Your task to perform on an android device: open app "Microsoft Excel" Image 0: 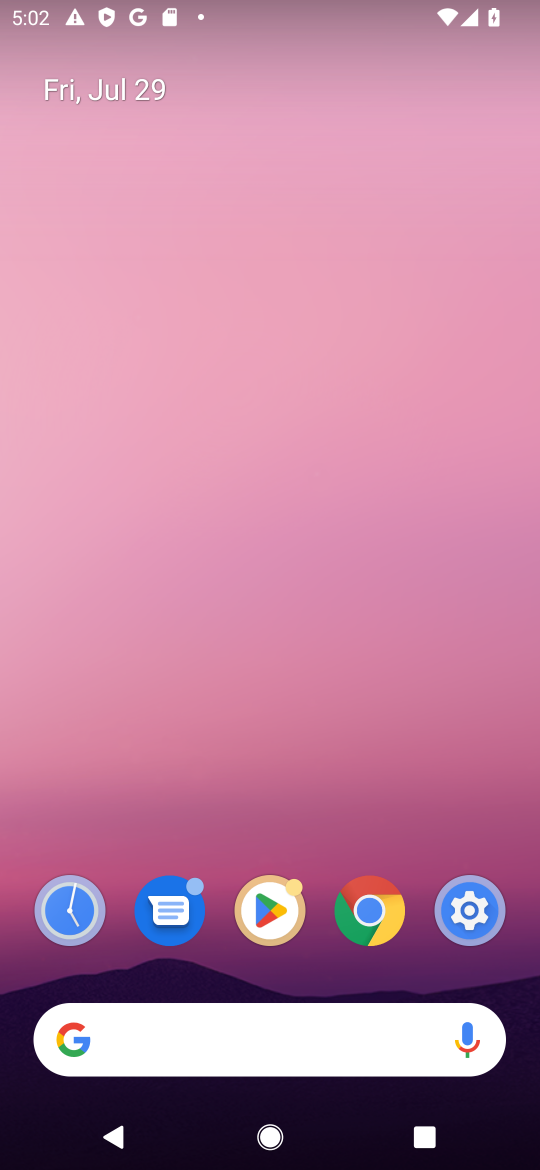
Step 0: drag from (276, 988) to (271, 181)
Your task to perform on an android device: open app "Microsoft Excel" Image 1: 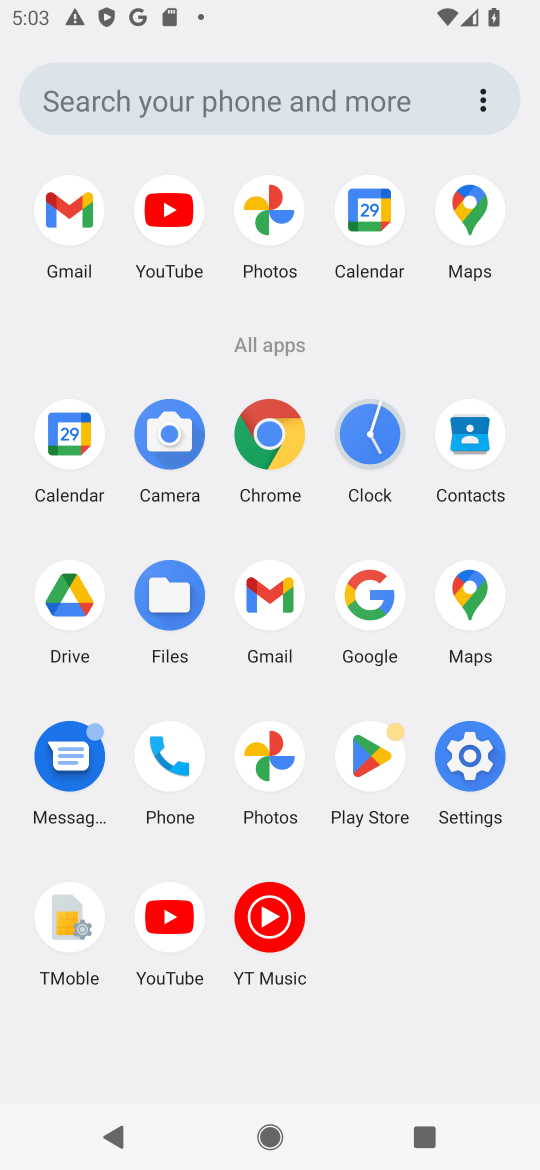
Step 1: click (359, 767)
Your task to perform on an android device: open app "Microsoft Excel" Image 2: 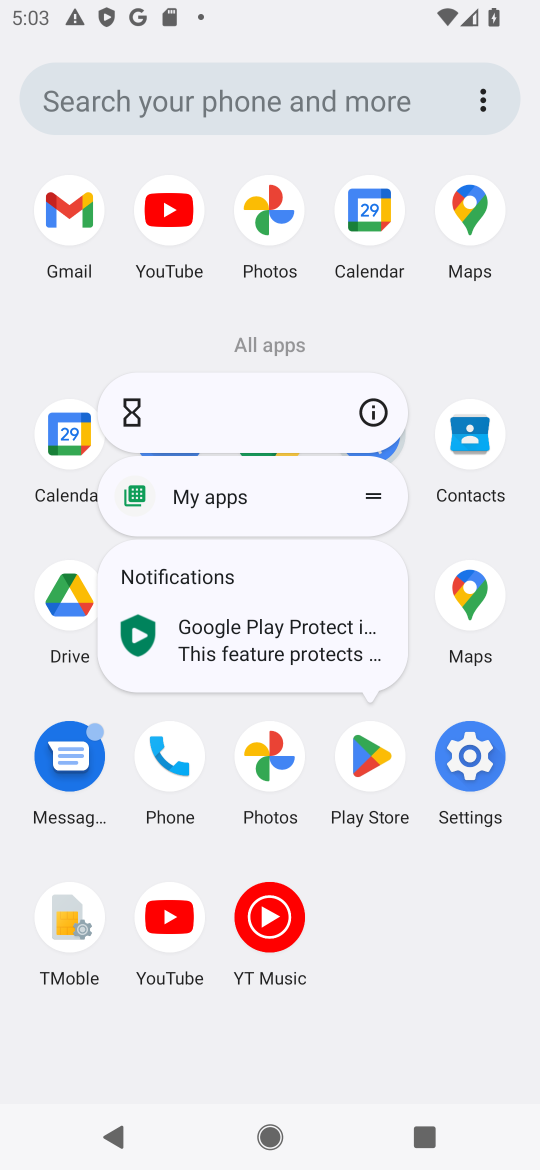
Step 2: click (180, 88)
Your task to perform on an android device: open app "Microsoft Excel" Image 3: 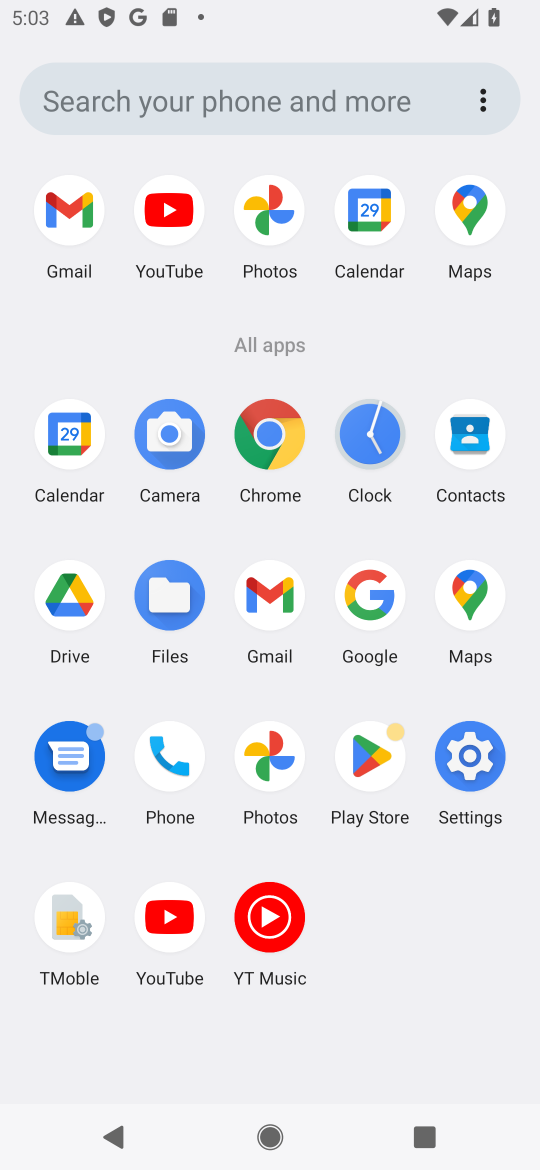
Step 3: click (125, 101)
Your task to perform on an android device: open app "Microsoft Excel" Image 4: 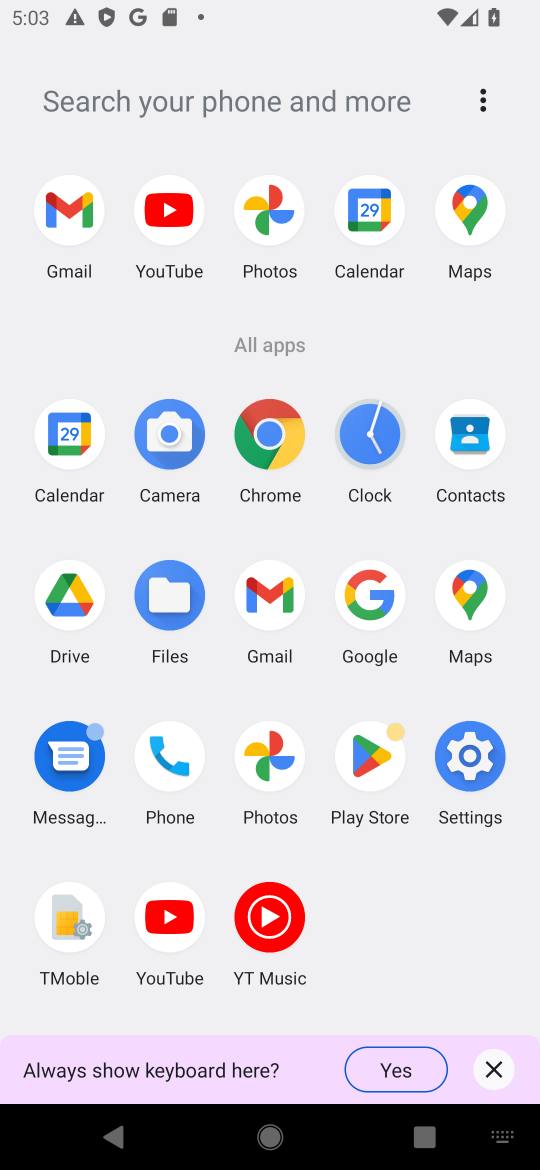
Step 4: click (375, 765)
Your task to perform on an android device: open app "Microsoft Excel" Image 5: 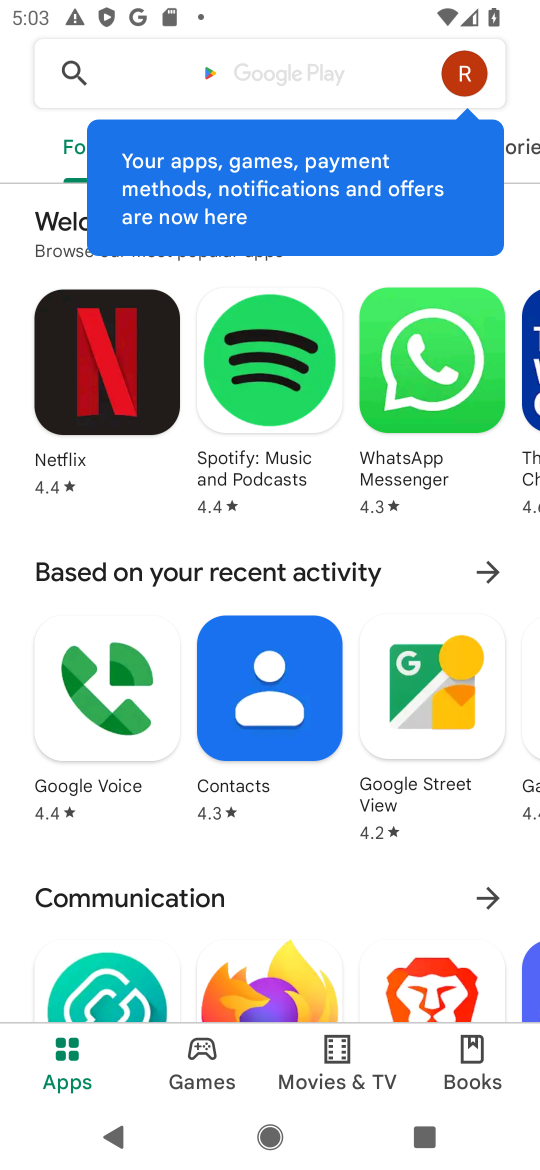
Step 5: click (314, 80)
Your task to perform on an android device: open app "Microsoft Excel" Image 6: 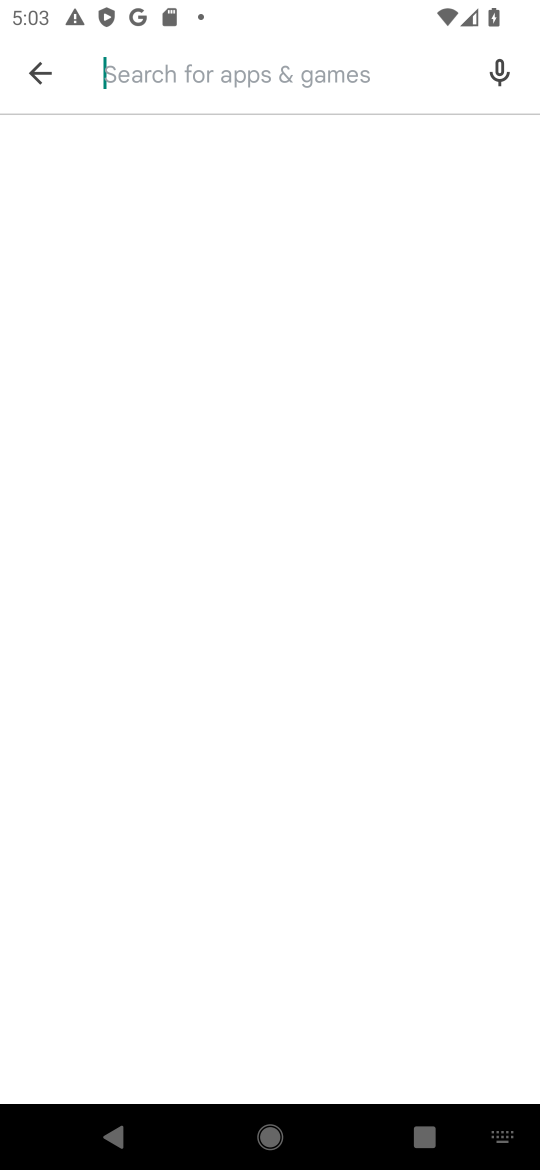
Step 6: type "Microsoft Exce"
Your task to perform on an android device: open app "Microsoft Excel" Image 7: 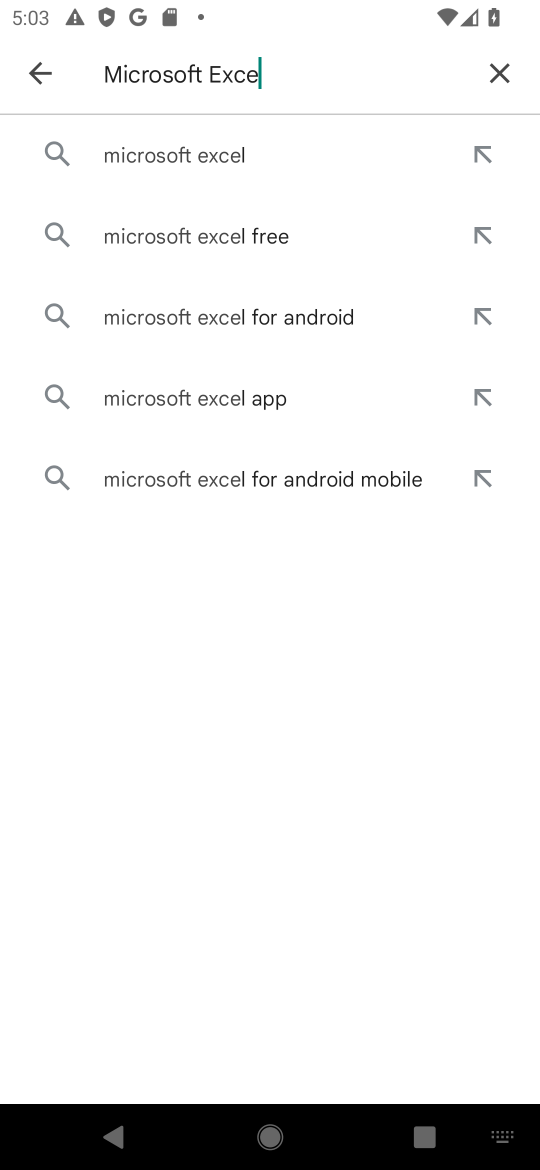
Step 7: click (186, 173)
Your task to perform on an android device: open app "Microsoft Excel" Image 8: 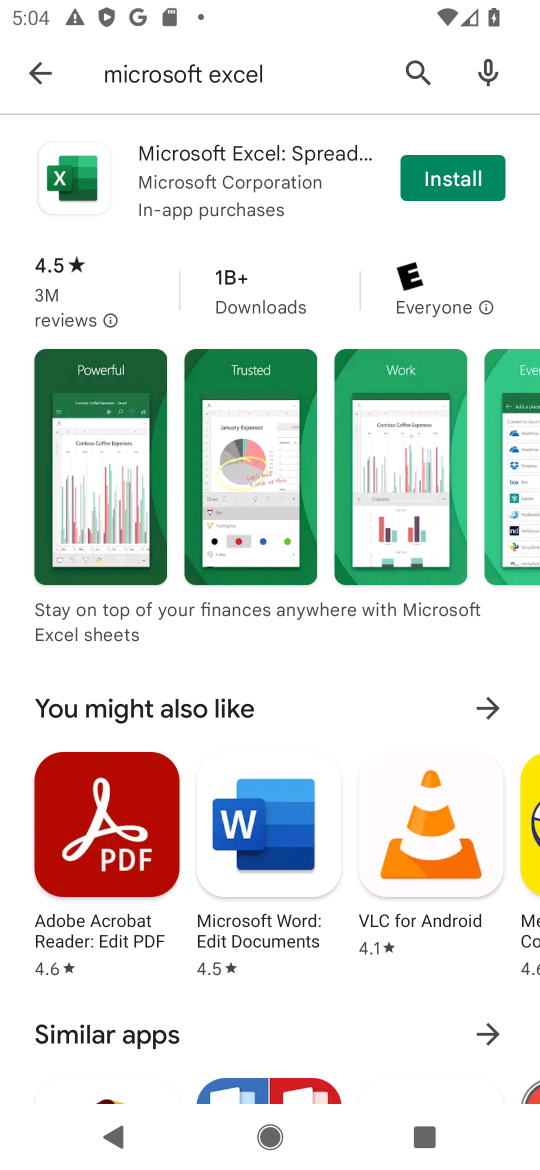
Step 8: click (428, 180)
Your task to perform on an android device: open app "Microsoft Excel" Image 9: 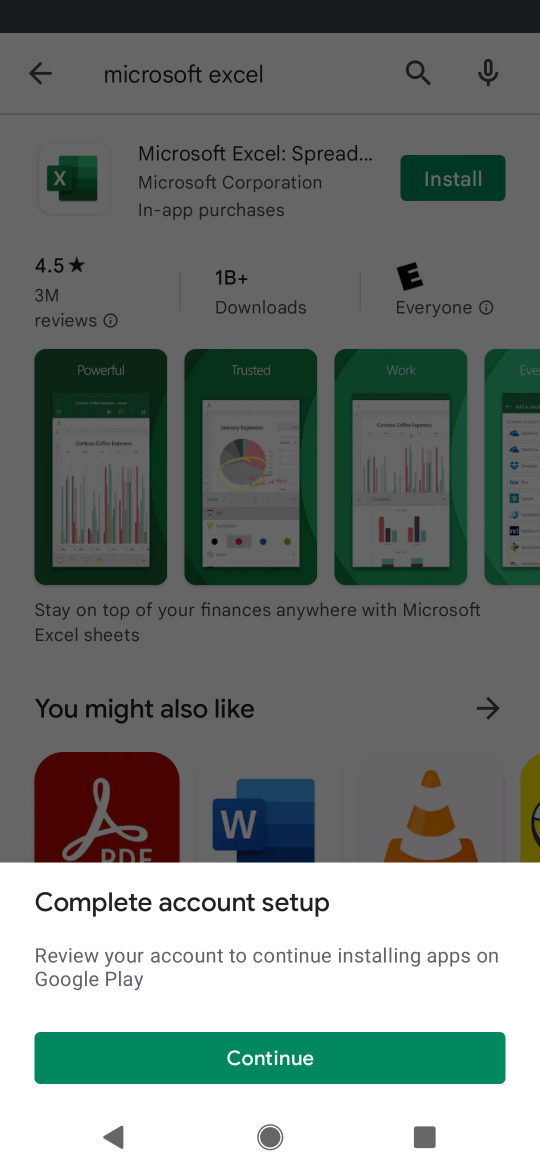
Step 9: click (279, 1068)
Your task to perform on an android device: open app "Microsoft Excel" Image 10: 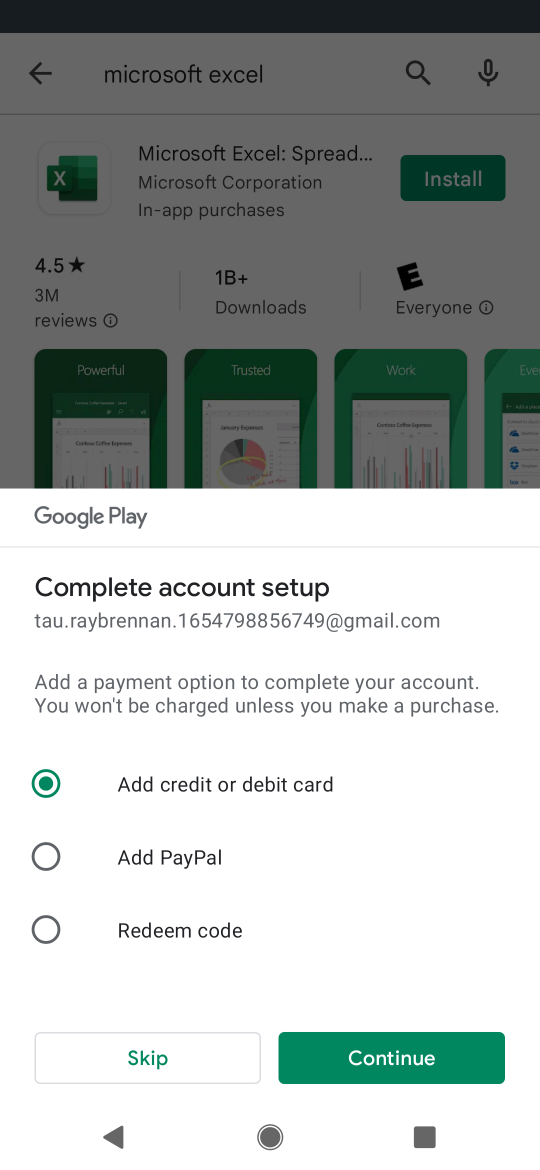
Step 10: click (138, 1068)
Your task to perform on an android device: open app "Microsoft Excel" Image 11: 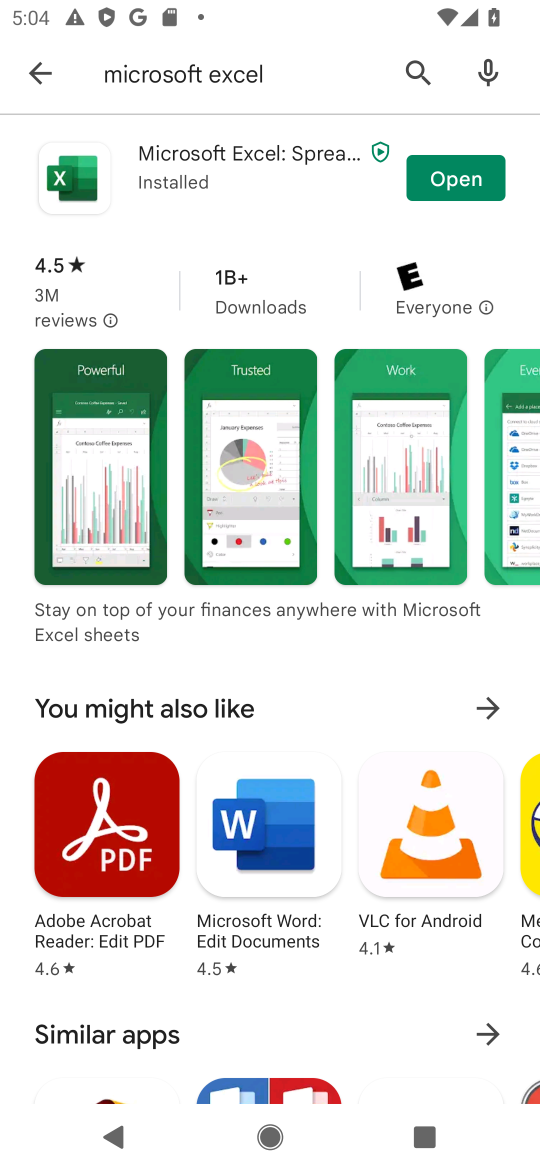
Step 11: click (445, 172)
Your task to perform on an android device: open app "Microsoft Excel" Image 12: 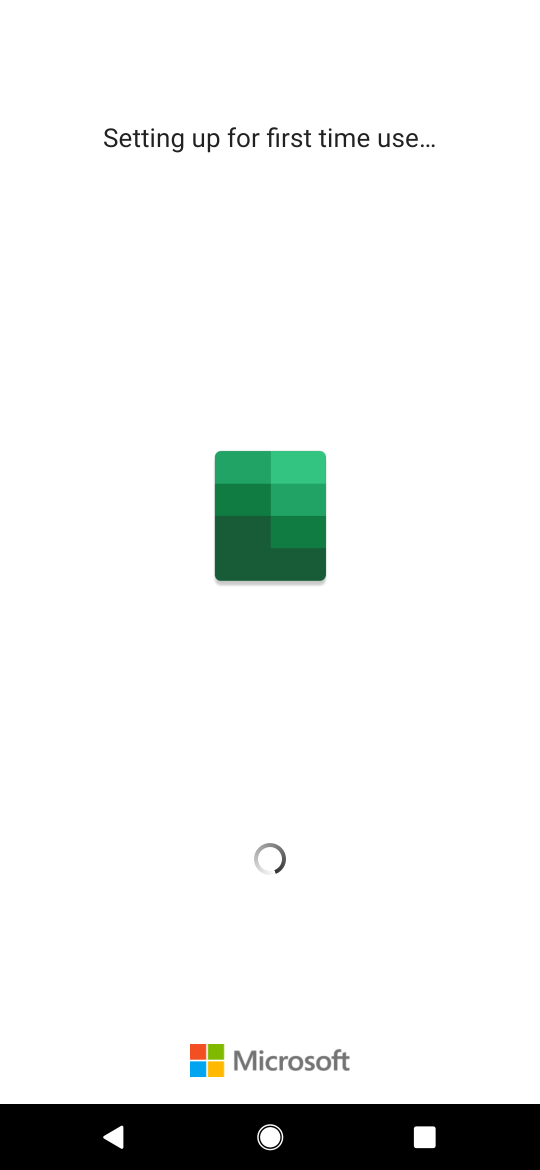
Step 12: task complete